Your task to perform on an android device: turn on improve location accuracy Image 0: 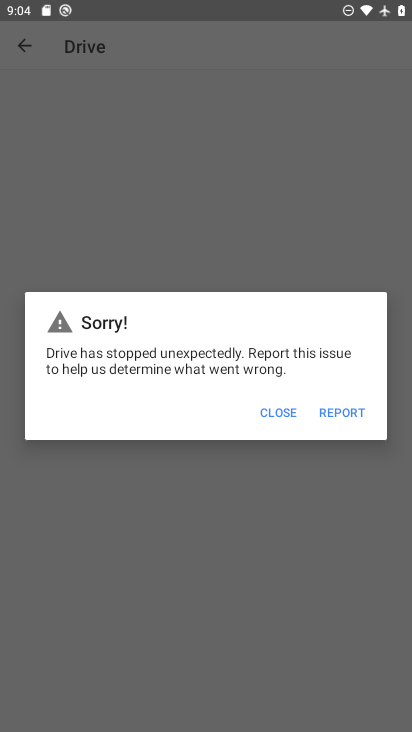
Step 0: press home button
Your task to perform on an android device: turn on improve location accuracy Image 1: 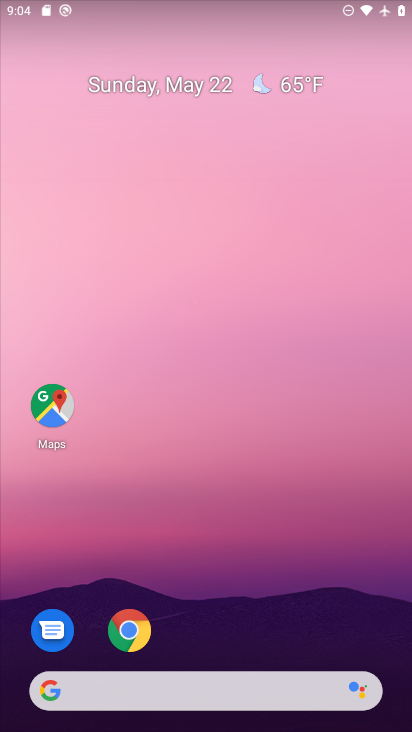
Step 1: drag from (109, 685) to (288, 85)
Your task to perform on an android device: turn on improve location accuracy Image 2: 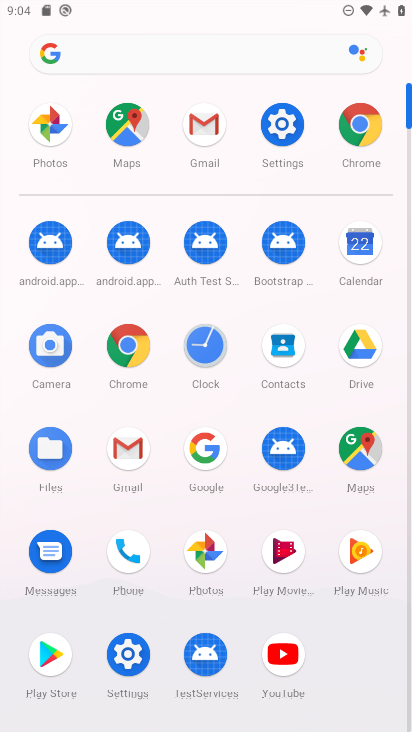
Step 2: click (268, 124)
Your task to perform on an android device: turn on improve location accuracy Image 3: 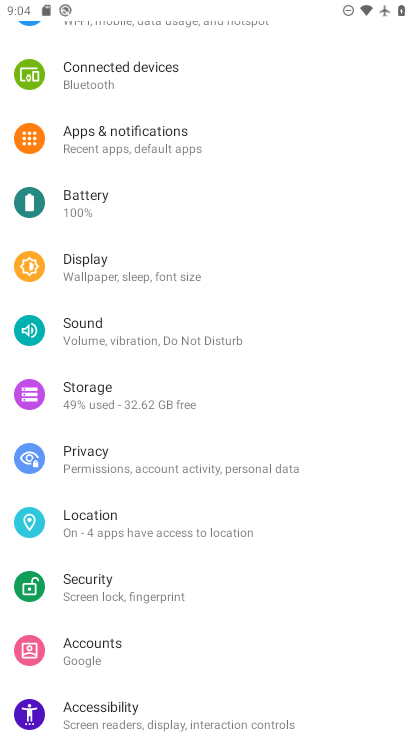
Step 3: drag from (194, 654) to (284, 364)
Your task to perform on an android device: turn on improve location accuracy Image 4: 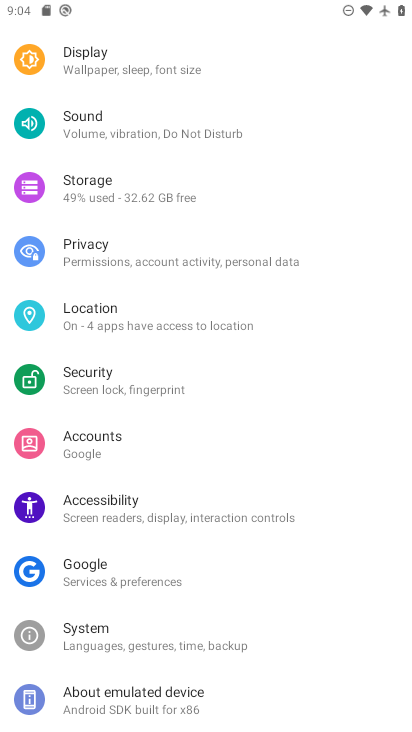
Step 4: click (153, 315)
Your task to perform on an android device: turn on improve location accuracy Image 5: 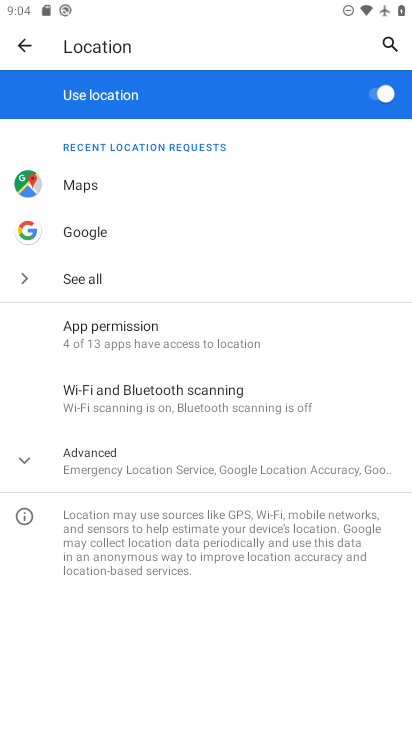
Step 5: click (130, 465)
Your task to perform on an android device: turn on improve location accuracy Image 6: 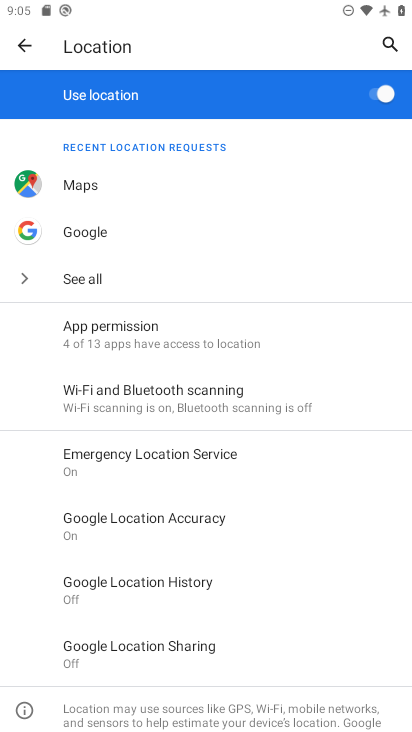
Step 6: click (151, 522)
Your task to perform on an android device: turn on improve location accuracy Image 7: 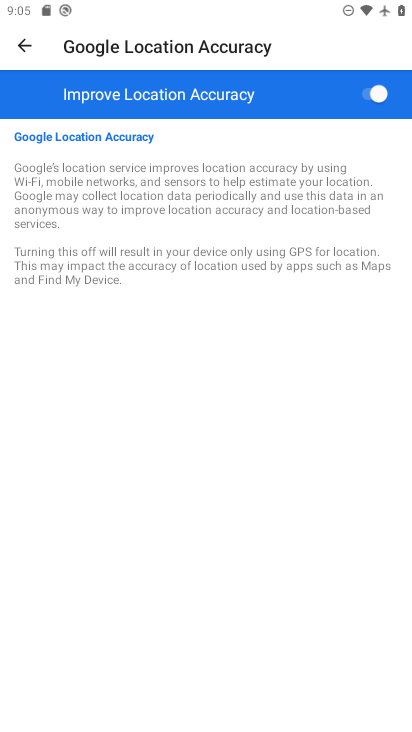
Step 7: task complete